Your task to perform on an android device: Open the calendar and show me this week's events Image 0: 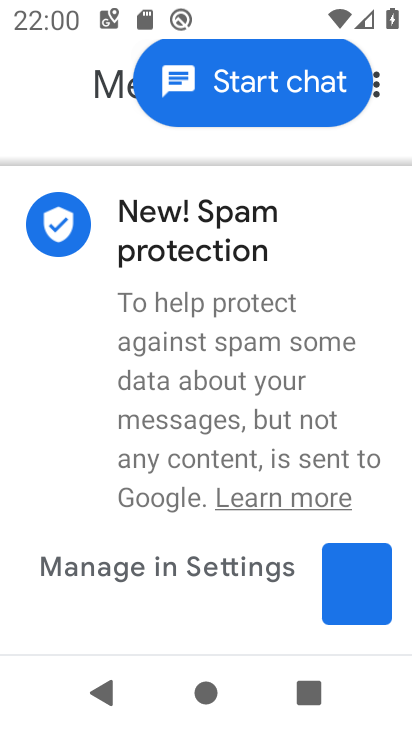
Step 0: press home button
Your task to perform on an android device: Open the calendar and show me this week's events Image 1: 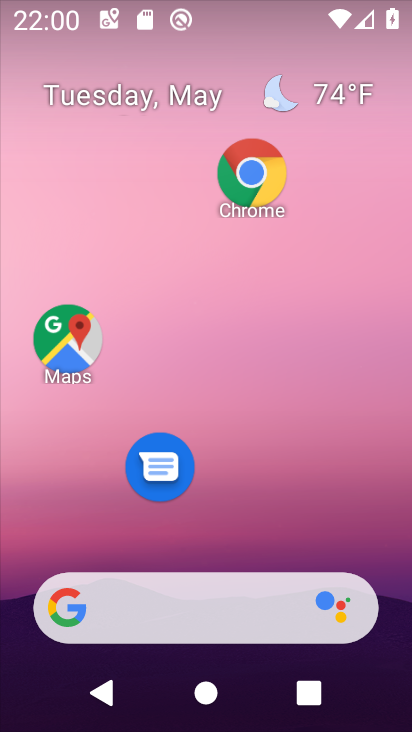
Step 1: drag from (322, 454) to (394, 59)
Your task to perform on an android device: Open the calendar and show me this week's events Image 2: 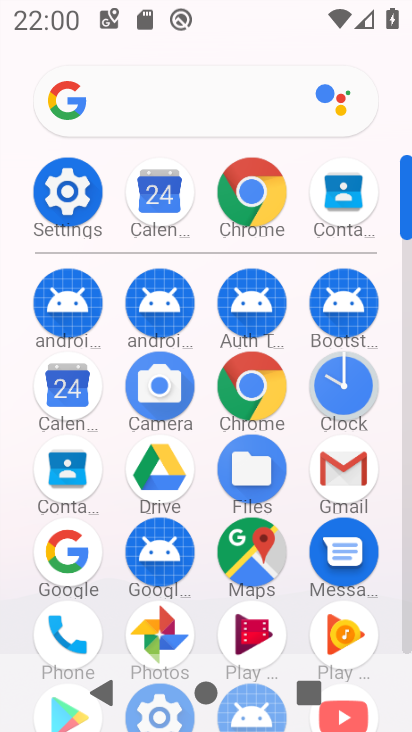
Step 2: click (79, 404)
Your task to perform on an android device: Open the calendar and show me this week's events Image 3: 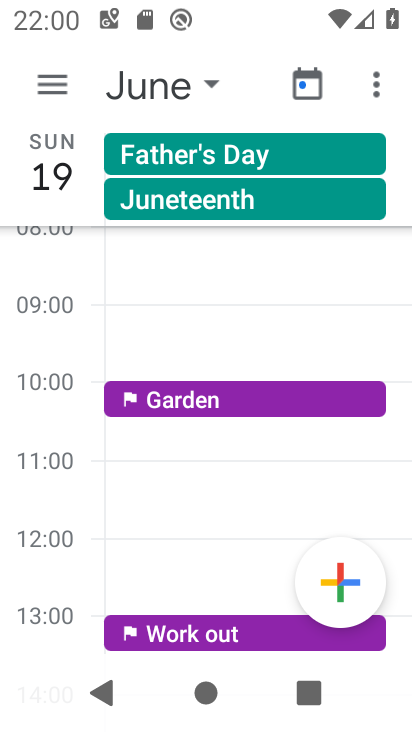
Step 3: click (137, 94)
Your task to perform on an android device: Open the calendar and show me this week's events Image 4: 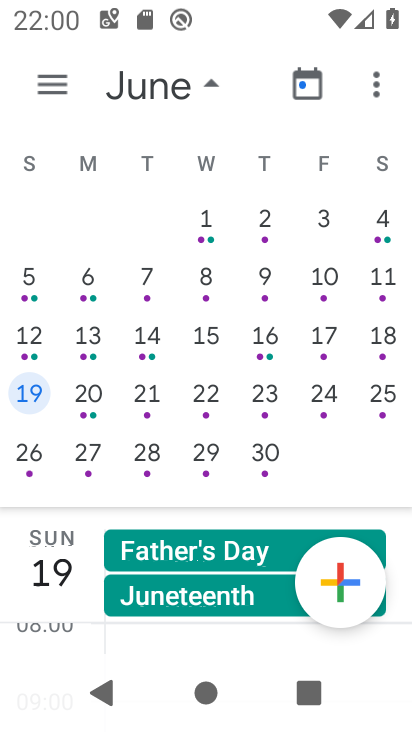
Step 4: drag from (70, 337) to (389, 323)
Your task to perform on an android device: Open the calendar and show me this week's events Image 5: 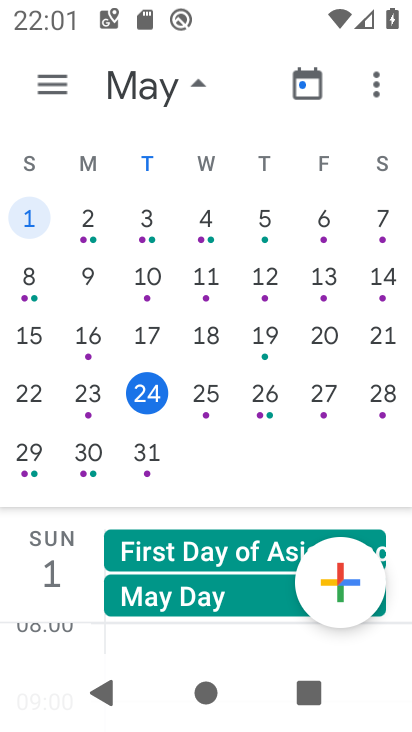
Step 5: click (29, 463)
Your task to perform on an android device: Open the calendar and show me this week's events Image 6: 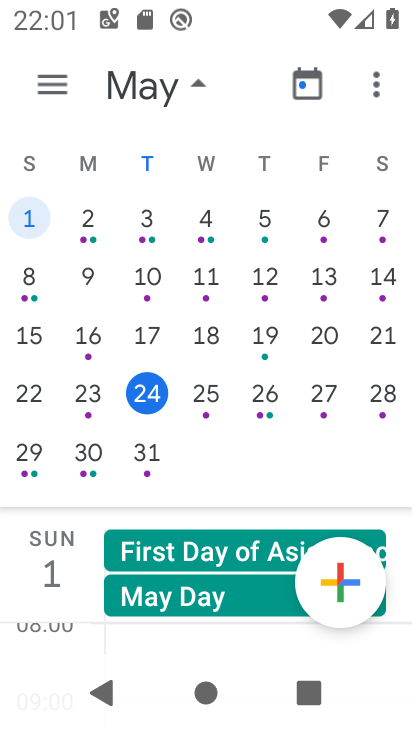
Step 6: click (29, 459)
Your task to perform on an android device: Open the calendar and show me this week's events Image 7: 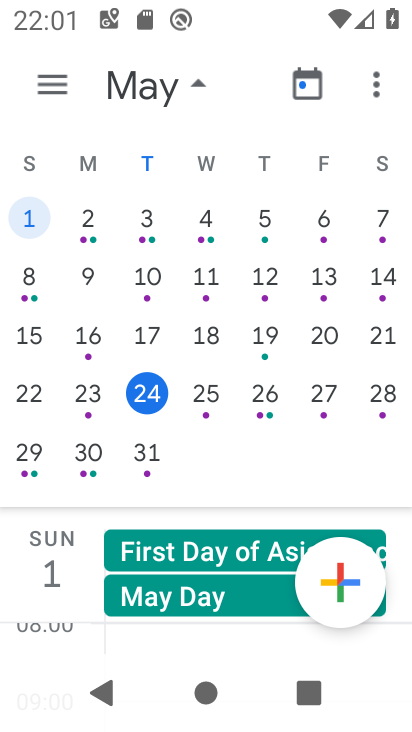
Step 7: click (41, 458)
Your task to perform on an android device: Open the calendar and show me this week's events Image 8: 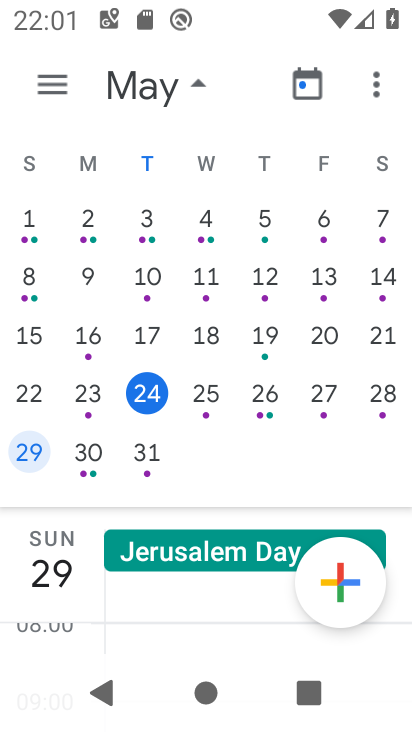
Step 8: task complete